Your task to perform on an android device: Open my contact list Image 0: 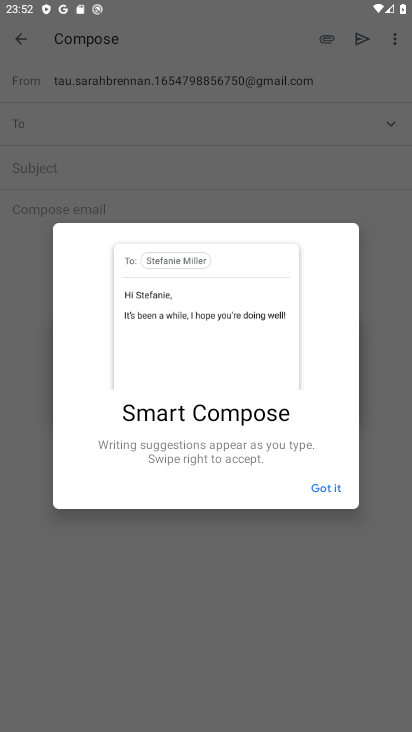
Step 0: press home button
Your task to perform on an android device: Open my contact list Image 1: 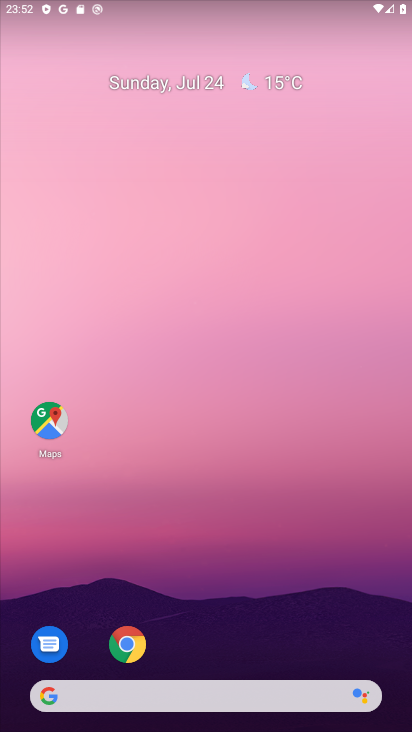
Step 1: click (231, 717)
Your task to perform on an android device: Open my contact list Image 2: 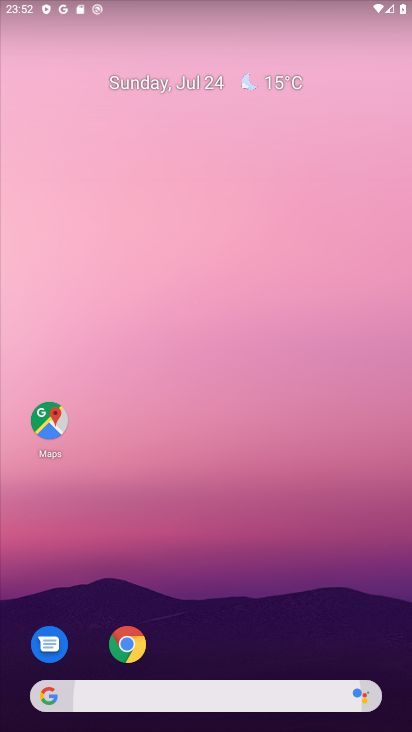
Step 2: drag from (196, 201) to (195, 119)
Your task to perform on an android device: Open my contact list Image 3: 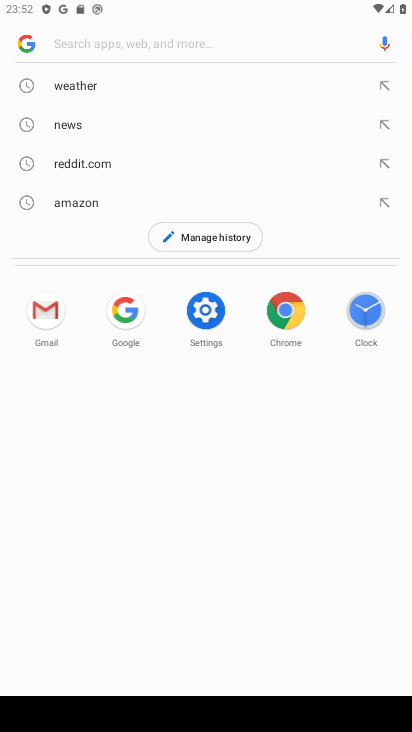
Step 3: press home button
Your task to perform on an android device: Open my contact list Image 4: 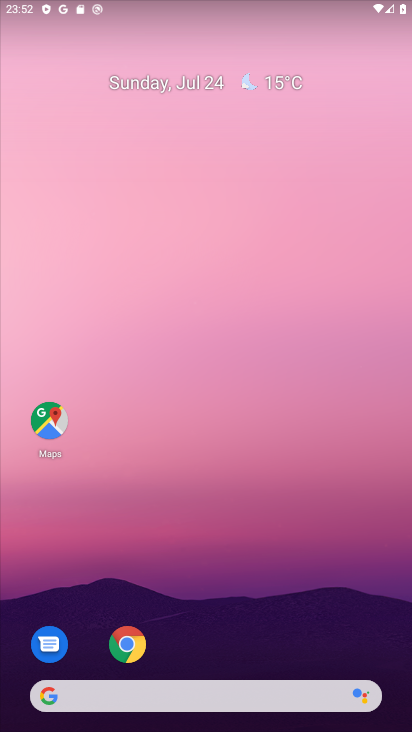
Step 4: drag from (201, 713) to (195, 182)
Your task to perform on an android device: Open my contact list Image 5: 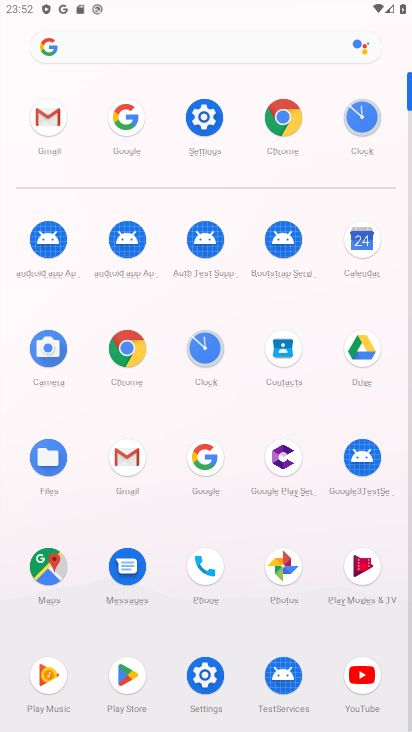
Step 5: click (277, 339)
Your task to perform on an android device: Open my contact list Image 6: 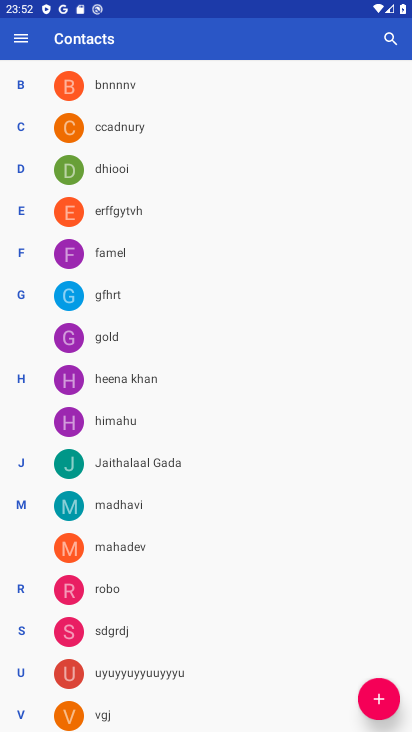
Step 6: task complete